Your task to perform on an android device: Is it going to rain today? Image 0: 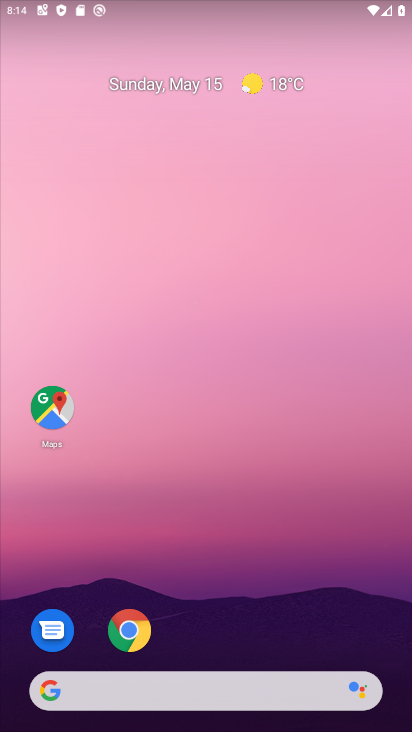
Step 0: drag from (210, 620) to (282, 8)
Your task to perform on an android device: Is it going to rain today? Image 1: 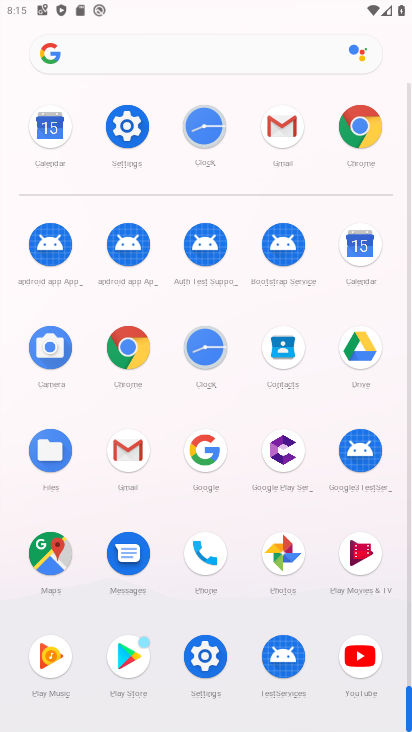
Step 1: click (169, 55)
Your task to perform on an android device: Is it going to rain today? Image 2: 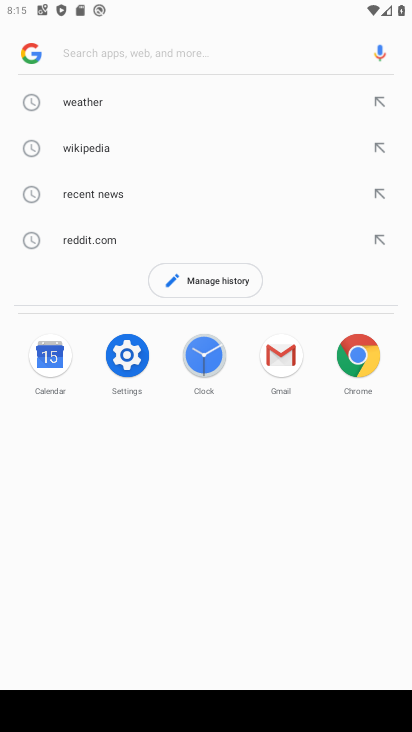
Step 2: type "rain today"
Your task to perform on an android device: Is it going to rain today? Image 3: 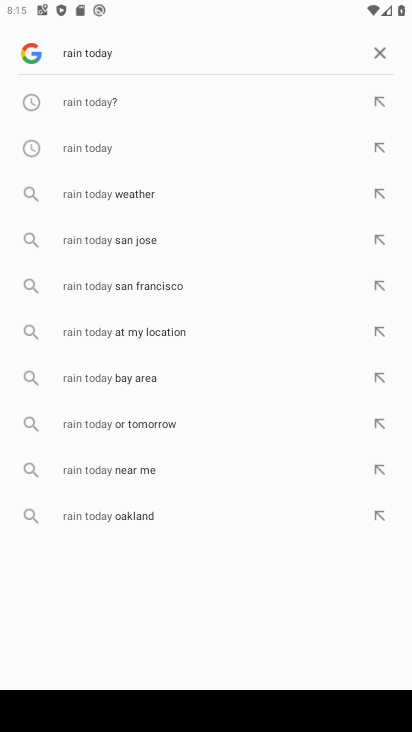
Step 3: click (116, 101)
Your task to perform on an android device: Is it going to rain today? Image 4: 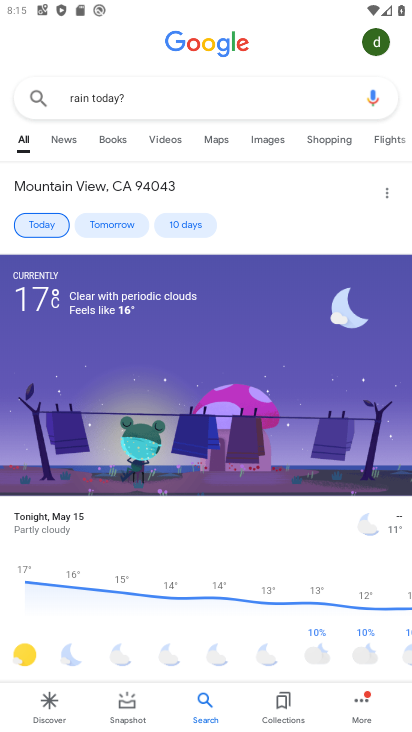
Step 4: task complete